Your task to perform on an android device: Open Android settings Image 0: 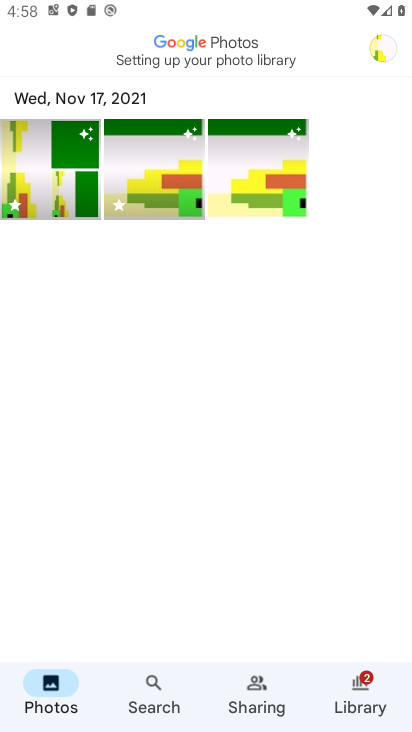
Step 0: press back button
Your task to perform on an android device: Open Android settings Image 1: 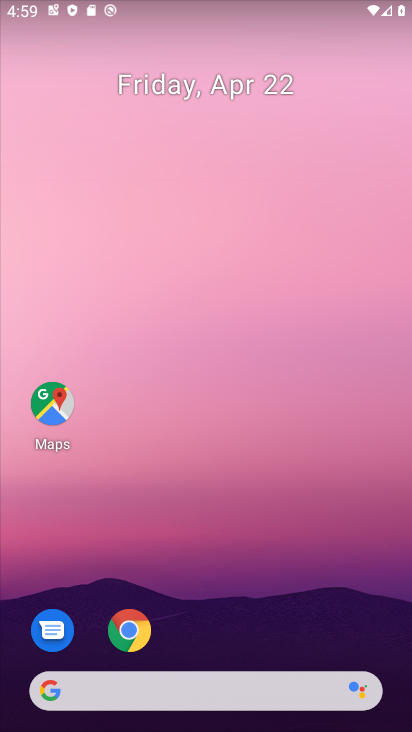
Step 1: drag from (212, 563) to (168, 84)
Your task to perform on an android device: Open Android settings Image 2: 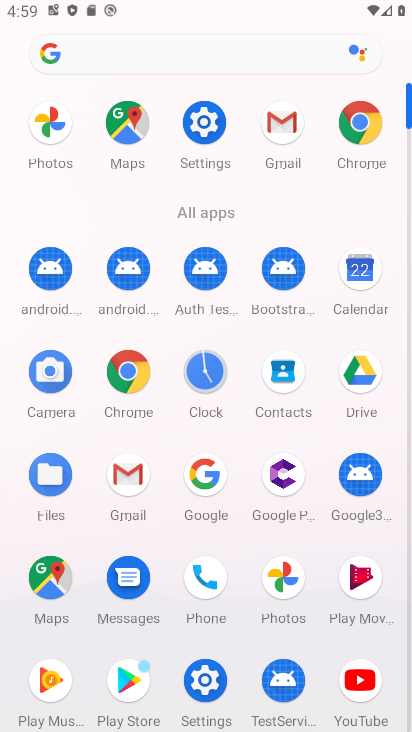
Step 2: click (205, 120)
Your task to perform on an android device: Open Android settings Image 3: 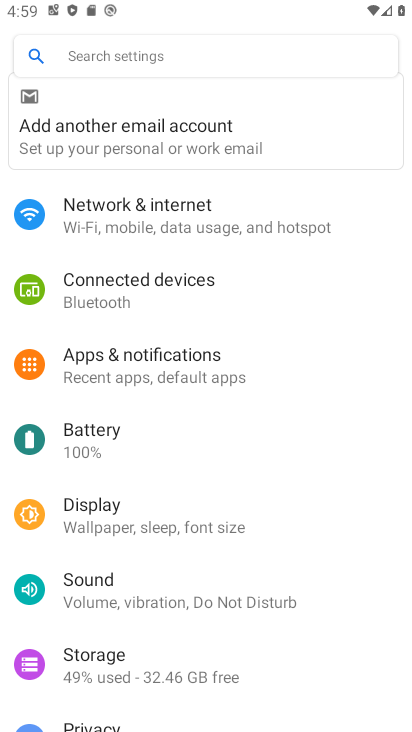
Step 3: task complete